Your task to perform on an android device: Open my contact list Image 0: 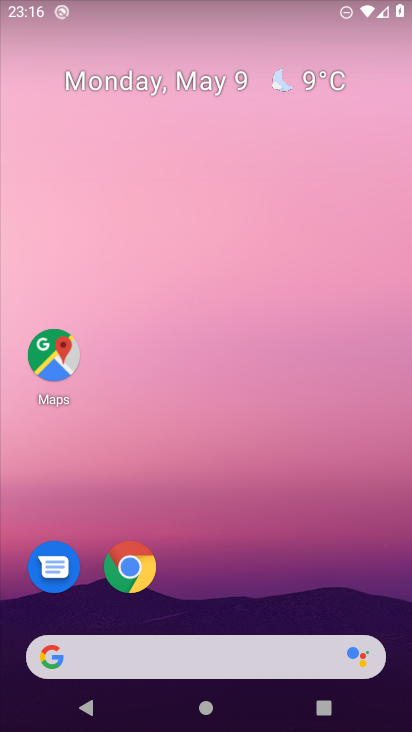
Step 0: drag from (221, 598) to (233, 105)
Your task to perform on an android device: Open my contact list Image 1: 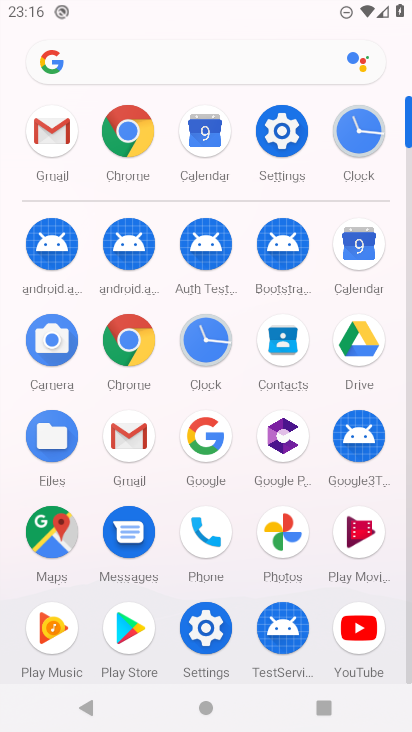
Step 1: click (279, 336)
Your task to perform on an android device: Open my contact list Image 2: 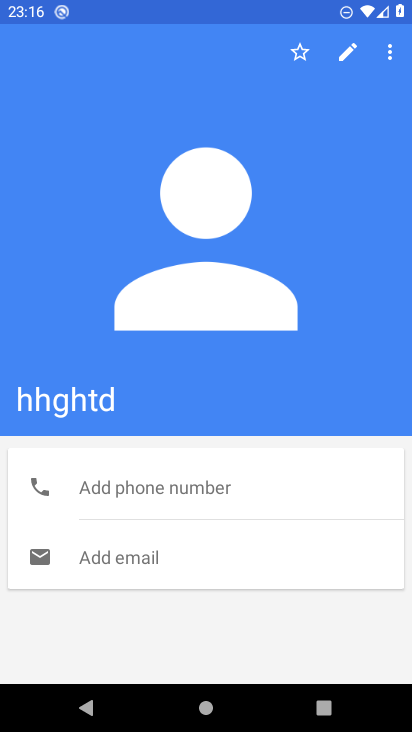
Step 2: task complete